Your task to perform on an android device: change keyboard looks Image 0: 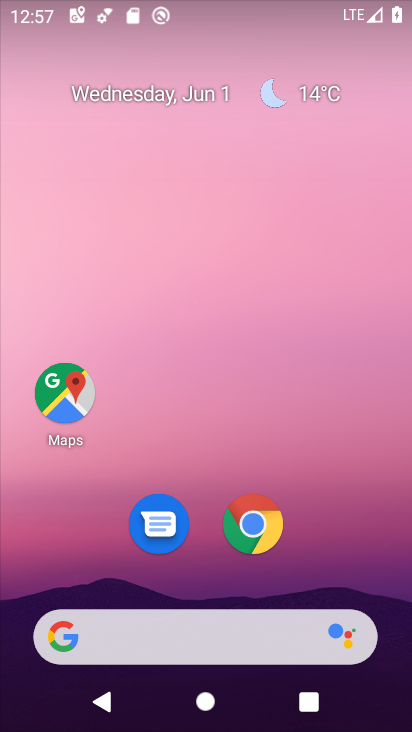
Step 0: drag from (310, 534) to (300, 48)
Your task to perform on an android device: change keyboard looks Image 1: 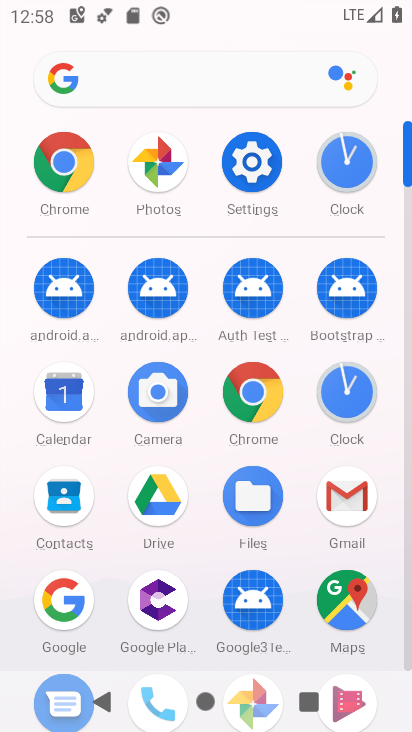
Step 1: click (259, 156)
Your task to perform on an android device: change keyboard looks Image 2: 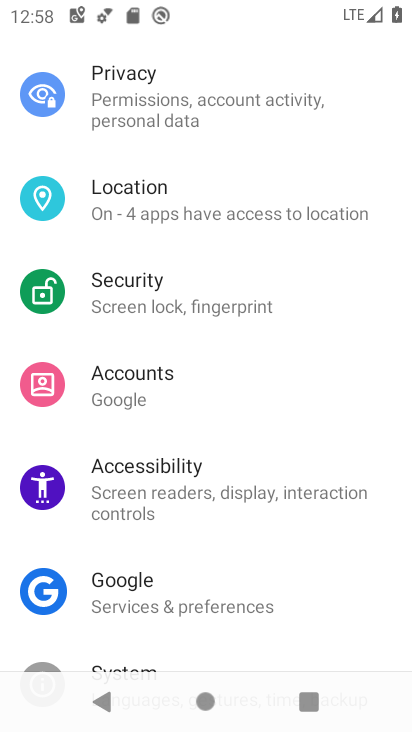
Step 2: drag from (217, 640) to (221, 445)
Your task to perform on an android device: change keyboard looks Image 3: 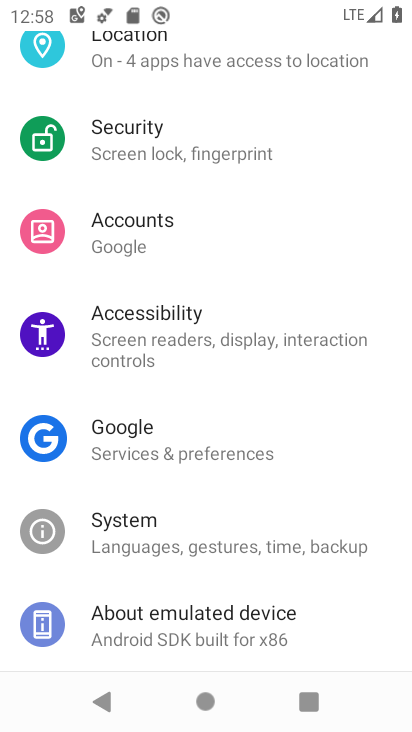
Step 3: click (187, 519)
Your task to perform on an android device: change keyboard looks Image 4: 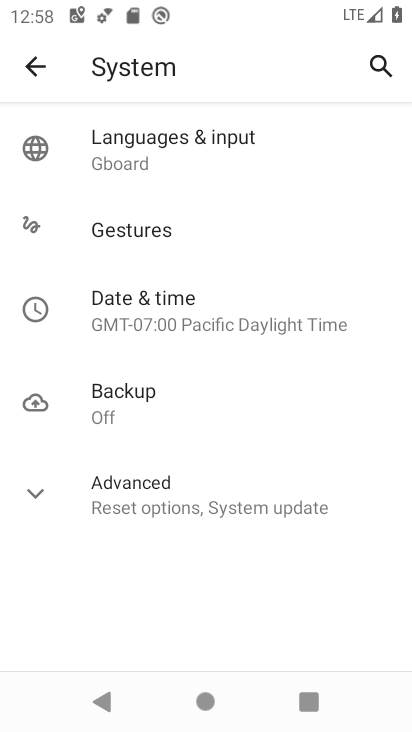
Step 4: click (154, 153)
Your task to perform on an android device: change keyboard looks Image 5: 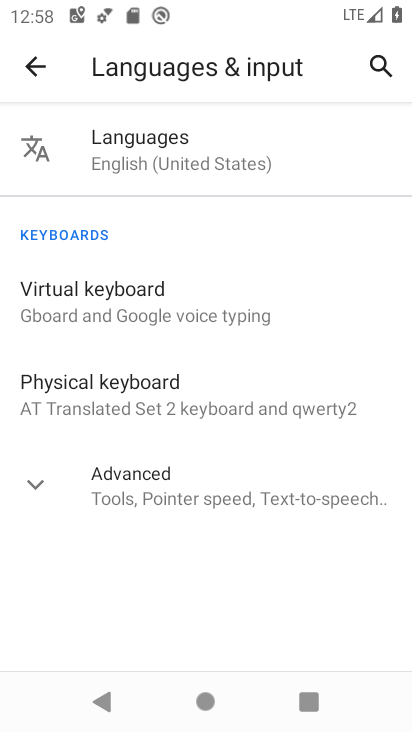
Step 5: click (94, 303)
Your task to perform on an android device: change keyboard looks Image 6: 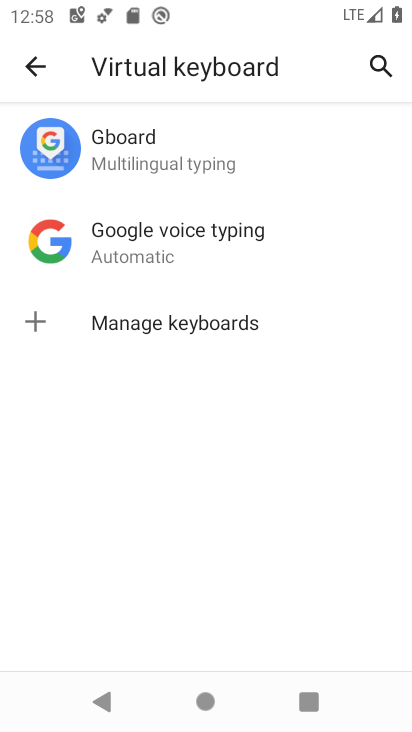
Step 6: click (139, 157)
Your task to perform on an android device: change keyboard looks Image 7: 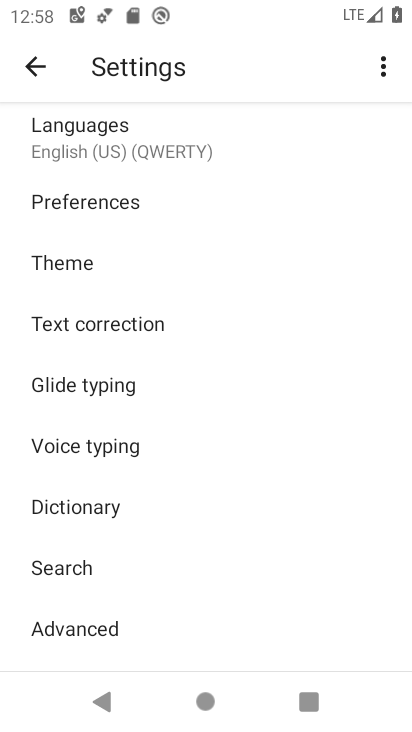
Step 7: click (134, 260)
Your task to perform on an android device: change keyboard looks Image 8: 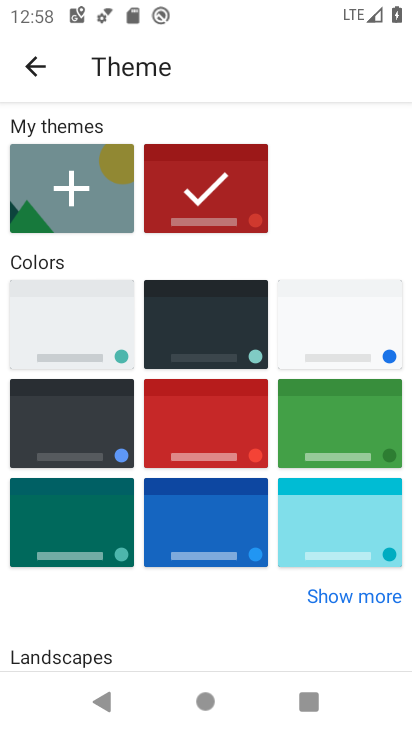
Step 8: click (214, 313)
Your task to perform on an android device: change keyboard looks Image 9: 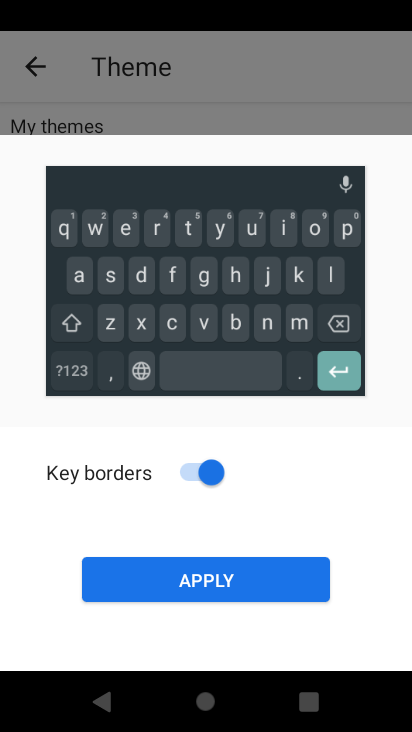
Step 9: click (197, 464)
Your task to perform on an android device: change keyboard looks Image 10: 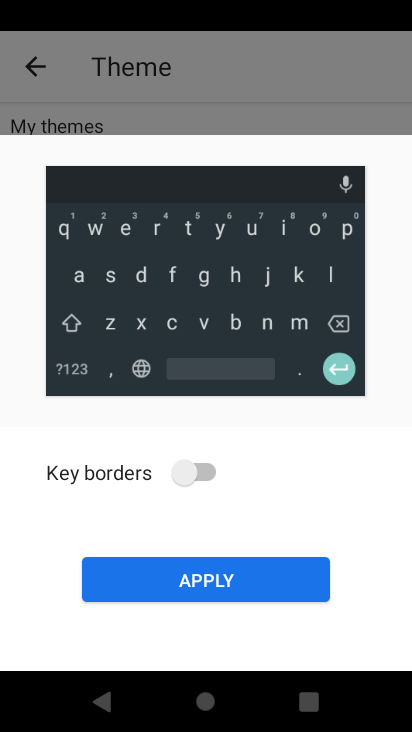
Step 10: click (197, 464)
Your task to perform on an android device: change keyboard looks Image 11: 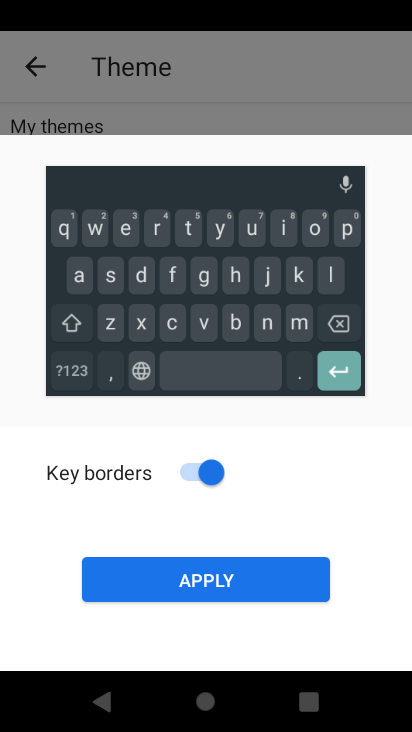
Step 11: click (194, 590)
Your task to perform on an android device: change keyboard looks Image 12: 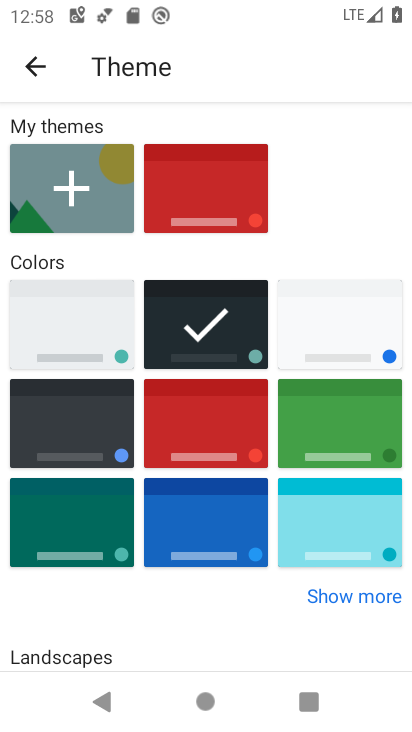
Step 12: task complete